Your task to perform on an android device: Set the phone to "Do not disturb". Image 0: 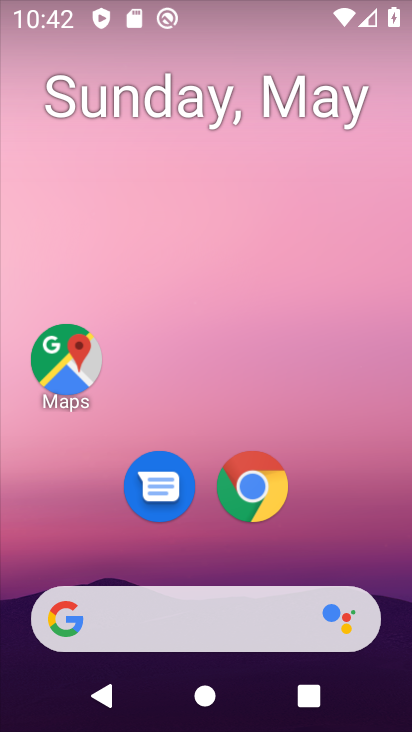
Step 0: drag from (267, 8) to (231, 381)
Your task to perform on an android device: Set the phone to "Do not disturb". Image 1: 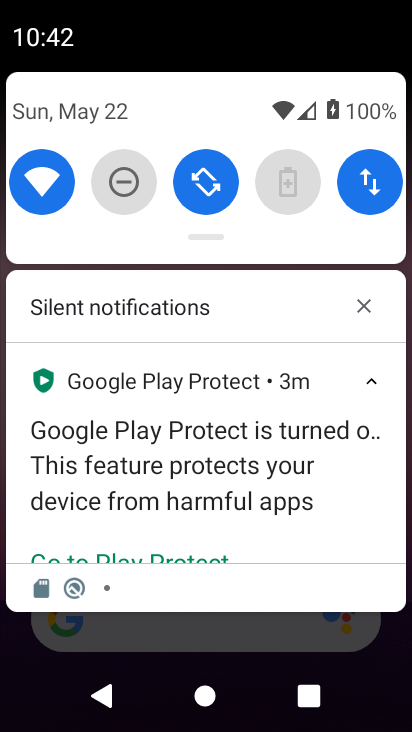
Step 1: click (124, 170)
Your task to perform on an android device: Set the phone to "Do not disturb". Image 2: 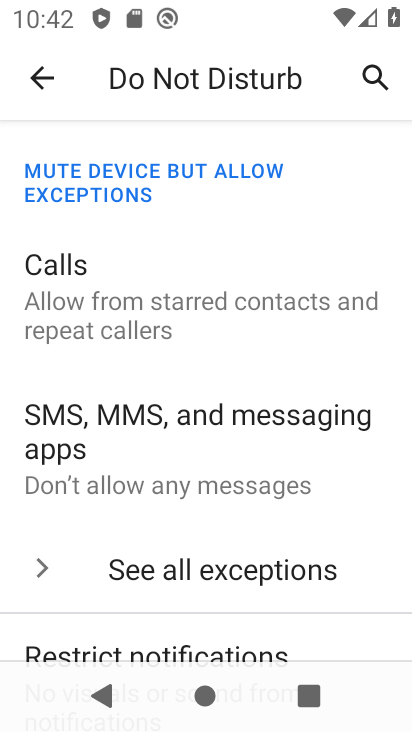
Step 2: drag from (256, 610) to (195, 159)
Your task to perform on an android device: Set the phone to "Do not disturb". Image 3: 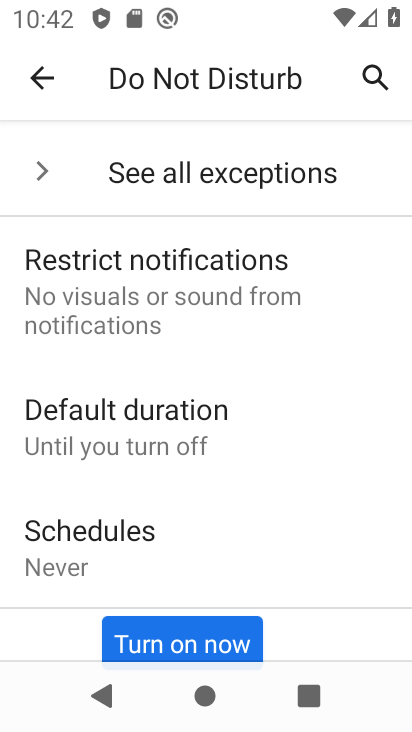
Step 3: drag from (273, 611) to (254, 283)
Your task to perform on an android device: Set the phone to "Do not disturb". Image 4: 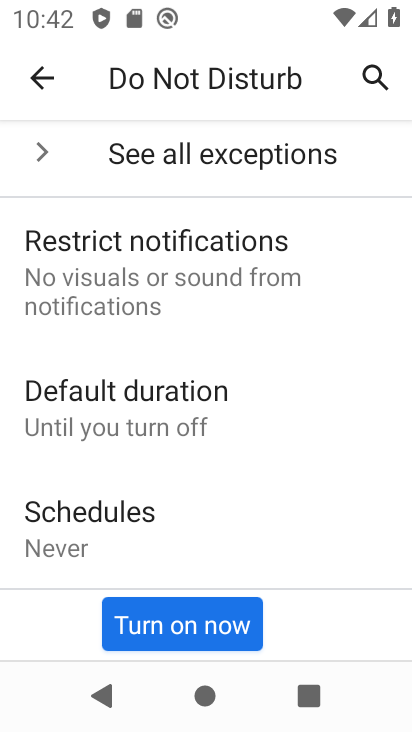
Step 4: click (207, 627)
Your task to perform on an android device: Set the phone to "Do not disturb". Image 5: 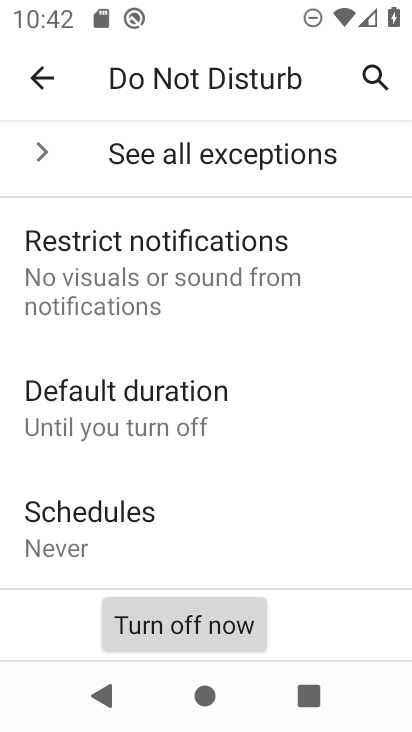
Step 5: task complete